Your task to perform on an android device: turn off airplane mode Image 0: 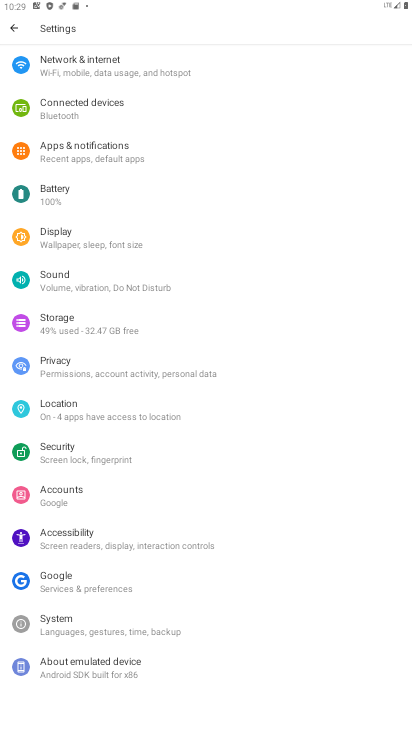
Step 0: click (131, 83)
Your task to perform on an android device: turn off airplane mode Image 1: 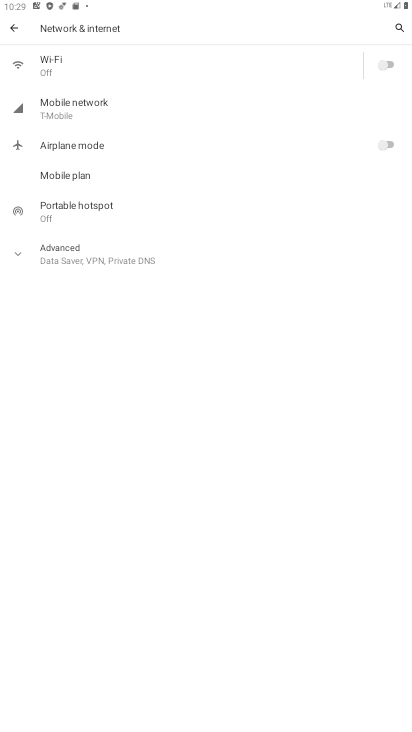
Step 1: task complete